Your task to perform on an android device: Open ESPN.com Image 0: 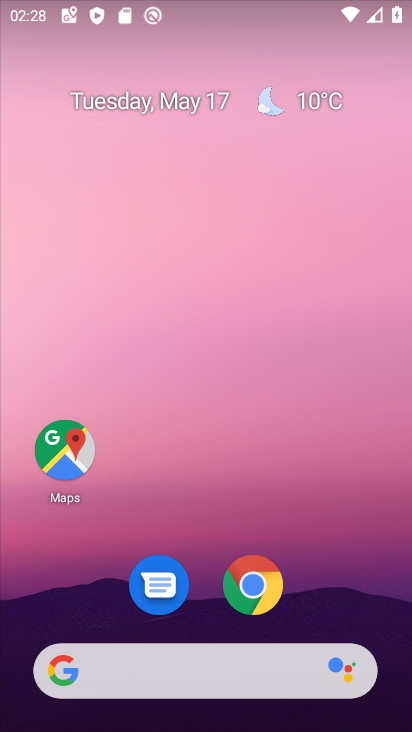
Step 0: click (265, 668)
Your task to perform on an android device: Open ESPN.com Image 1: 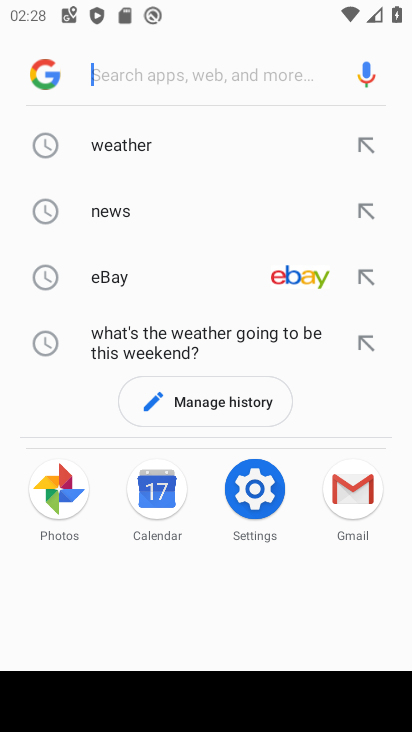
Step 1: type "espn.con"
Your task to perform on an android device: Open ESPN.com Image 2: 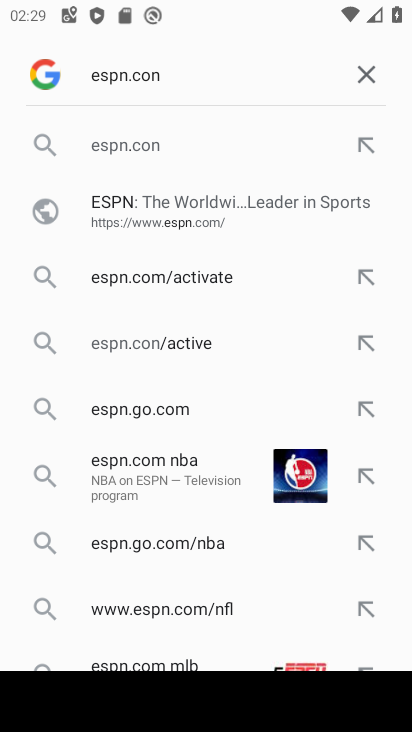
Step 2: click (91, 197)
Your task to perform on an android device: Open ESPN.com Image 3: 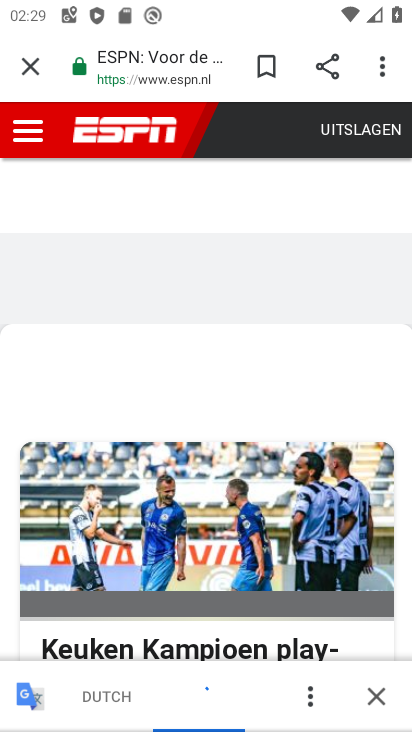
Step 3: task complete